Your task to perform on an android device: add a contact in the contacts app Image 0: 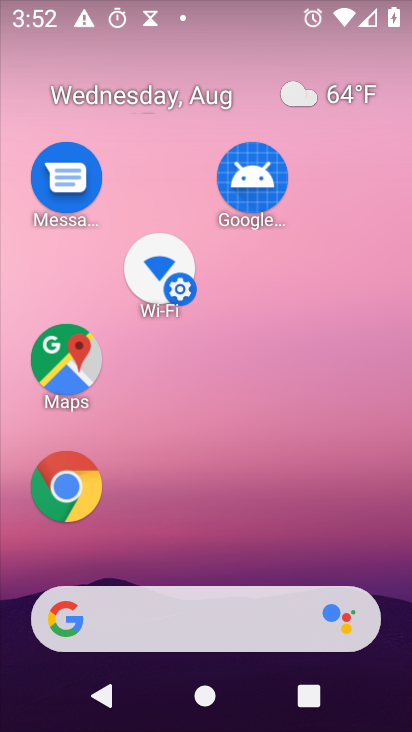
Step 0: press home button
Your task to perform on an android device: add a contact in the contacts app Image 1: 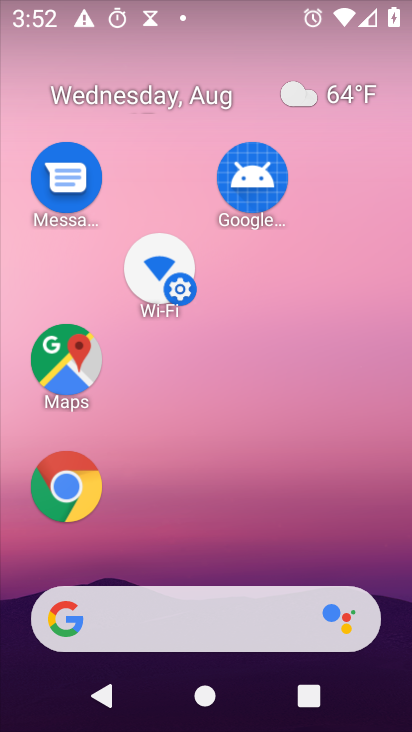
Step 1: drag from (237, 545) to (158, 20)
Your task to perform on an android device: add a contact in the contacts app Image 2: 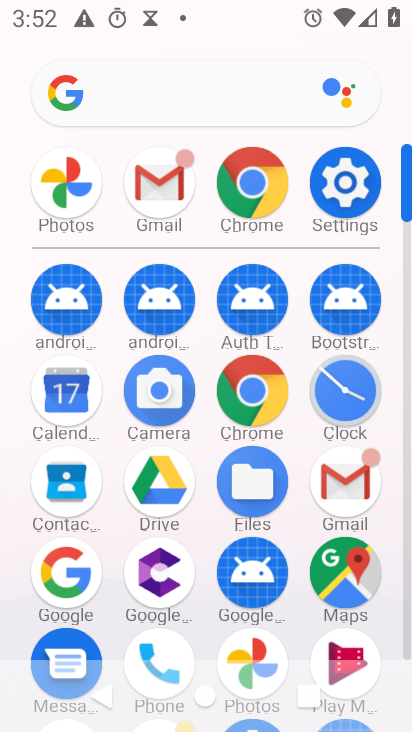
Step 2: click (69, 485)
Your task to perform on an android device: add a contact in the contacts app Image 3: 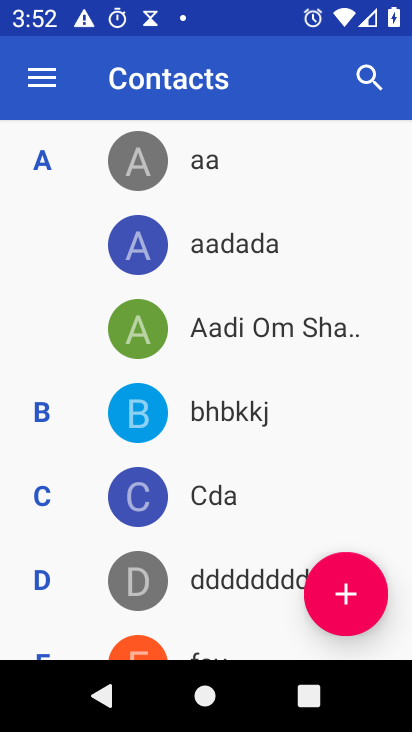
Step 3: click (321, 596)
Your task to perform on an android device: add a contact in the contacts app Image 4: 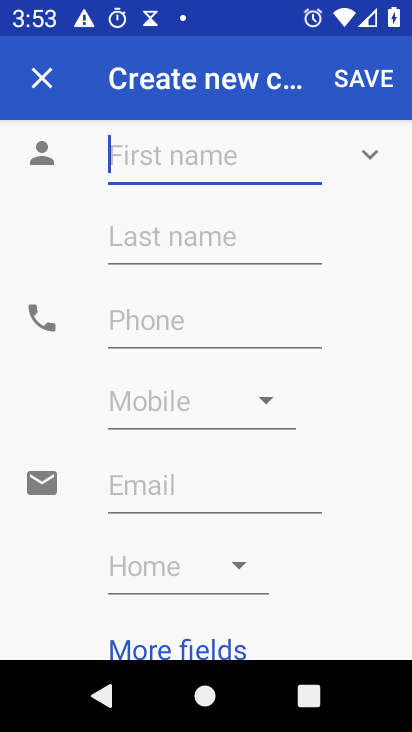
Step 4: press enter
Your task to perform on an android device: add a contact in the contacts app Image 5: 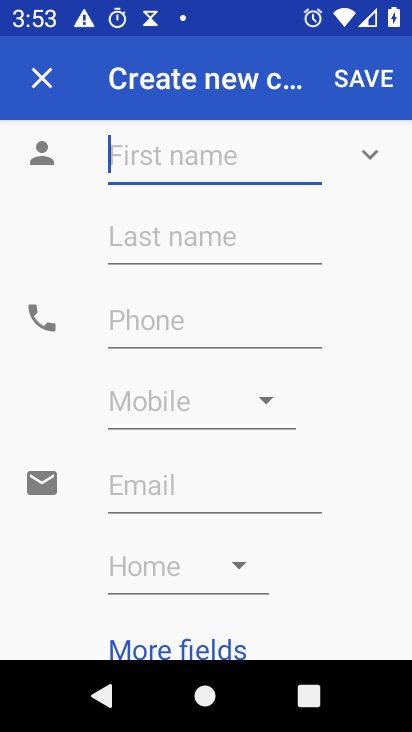
Step 5: type "kjjkjkjk"
Your task to perform on an android device: add a contact in the contacts app Image 6: 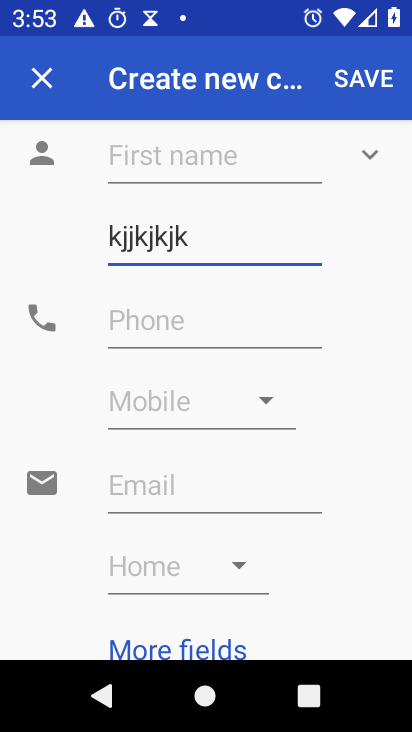
Step 6: click (234, 325)
Your task to perform on an android device: add a contact in the contacts app Image 7: 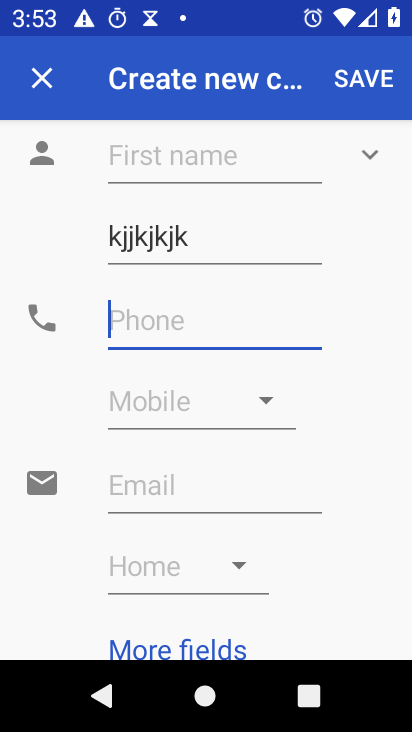
Step 7: type "6776767"
Your task to perform on an android device: add a contact in the contacts app Image 8: 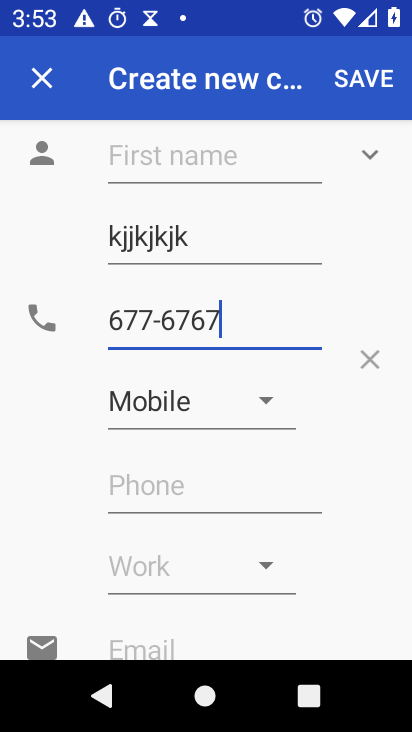
Step 8: press enter
Your task to perform on an android device: add a contact in the contacts app Image 9: 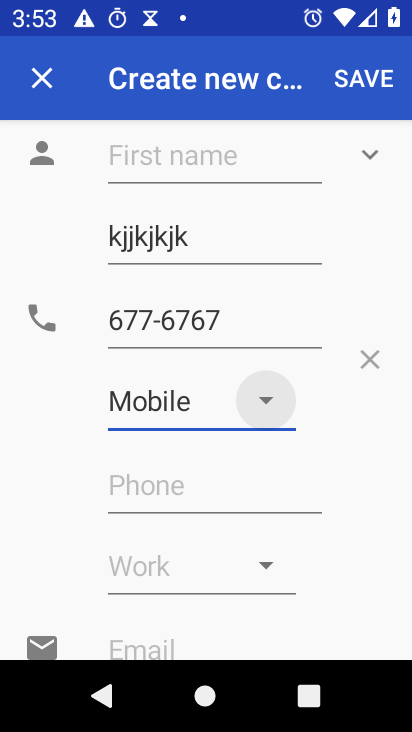
Step 9: click (352, 76)
Your task to perform on an android device: add a contact in the contacts app Image 10: 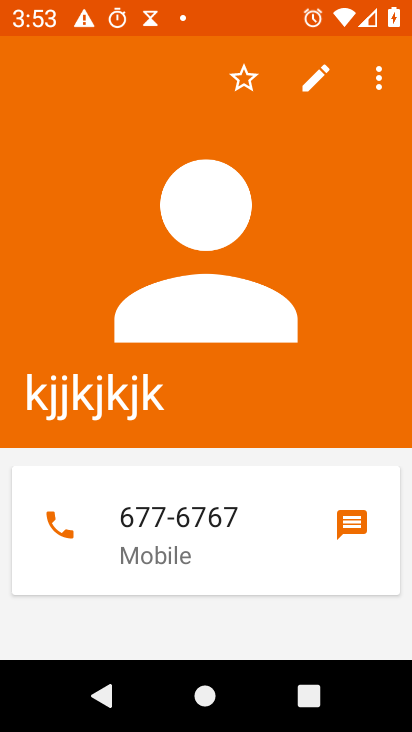
Step 10: task complete